Your task to perform on an android device: Google the capital of Uruguay Image 0: 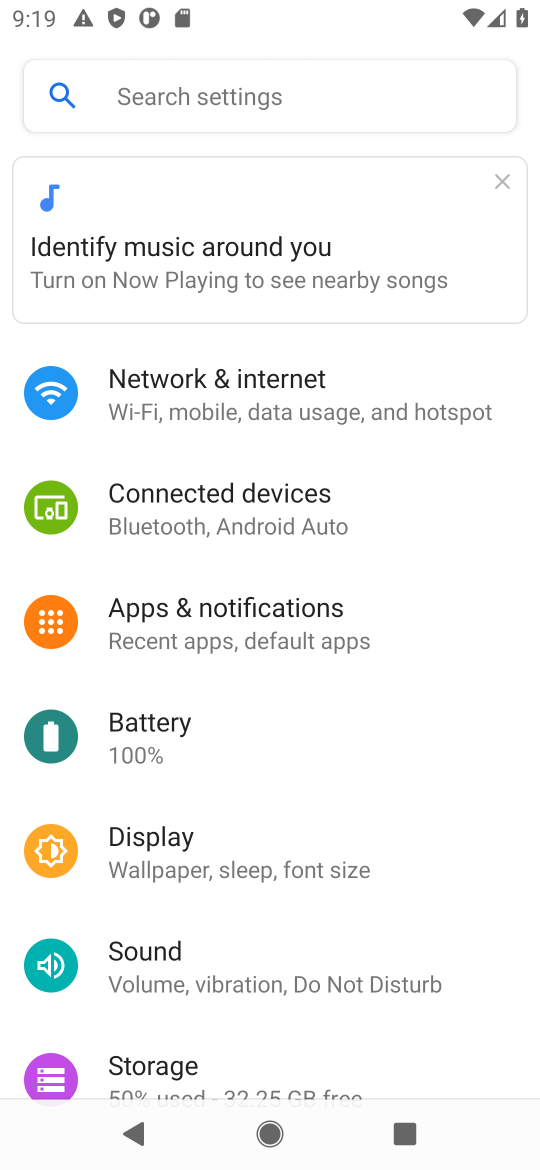
Step 0: press home button
Your task to perform on an android device: Google the capital of Uruguay Image 1: 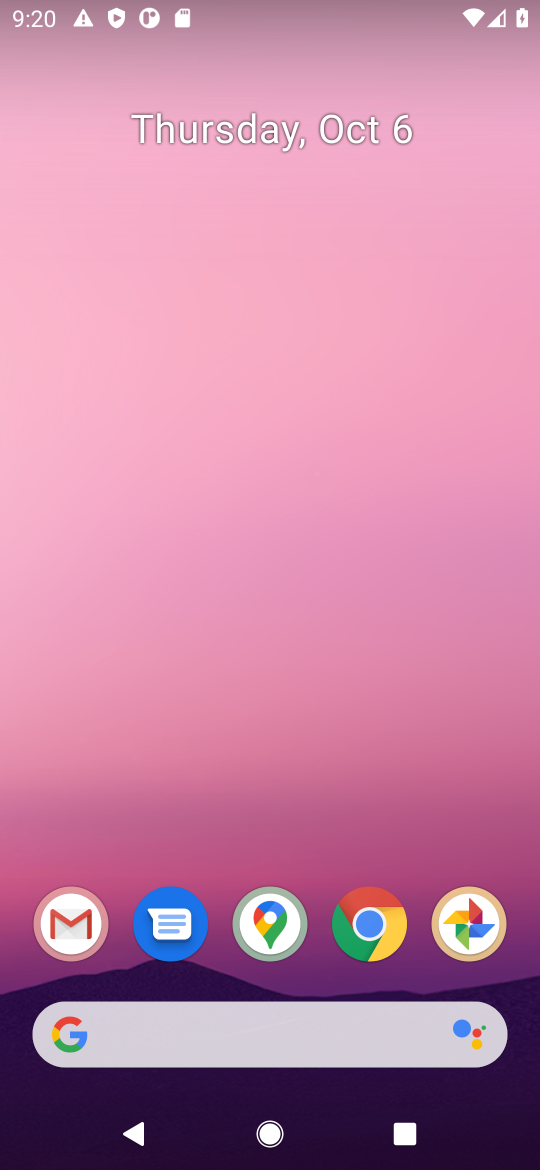
Step 1: click (369, 914)
Your task to perform on an android device: Google the capital of Uruguay Image 2: 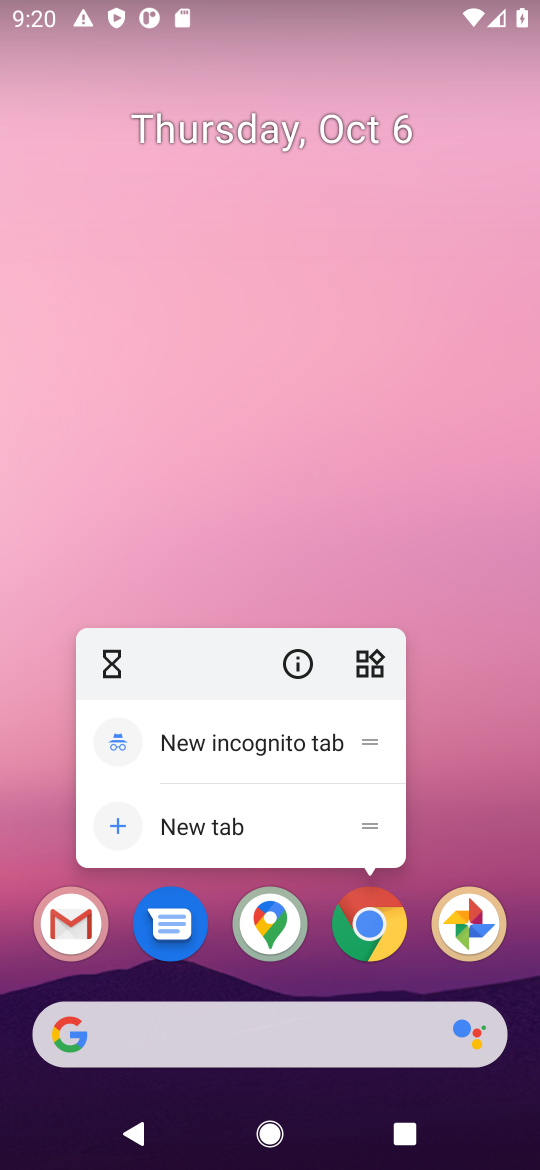
Step 2: click (369, 917)
Your task to perform on an android device: Google the capital of Uruguay Image 3: 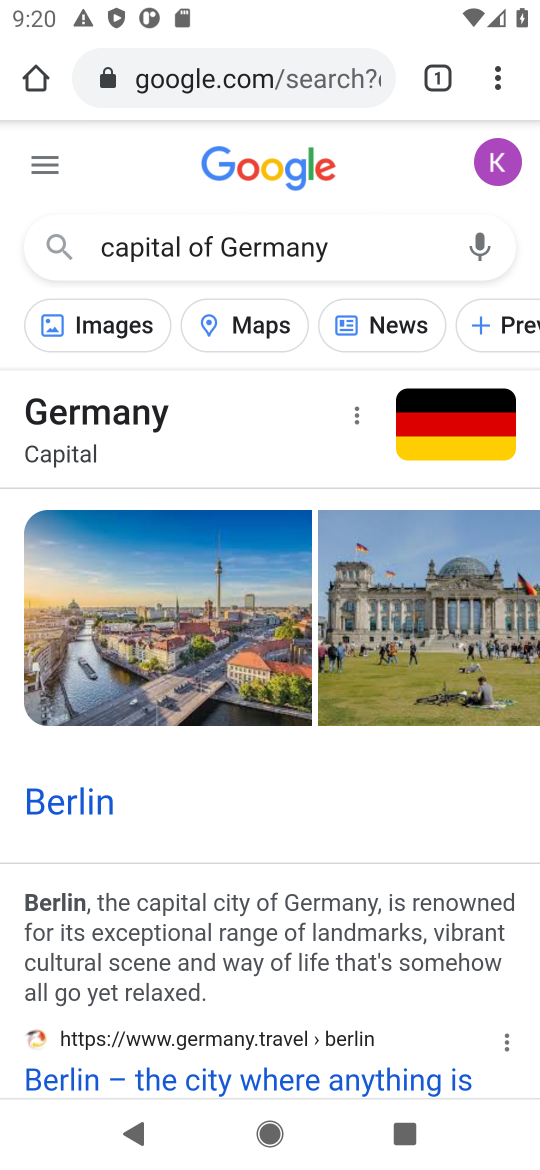
Step 3: click (319, 69)
Your task to perform on an android device: Google the capital of Uruguay Image 4: 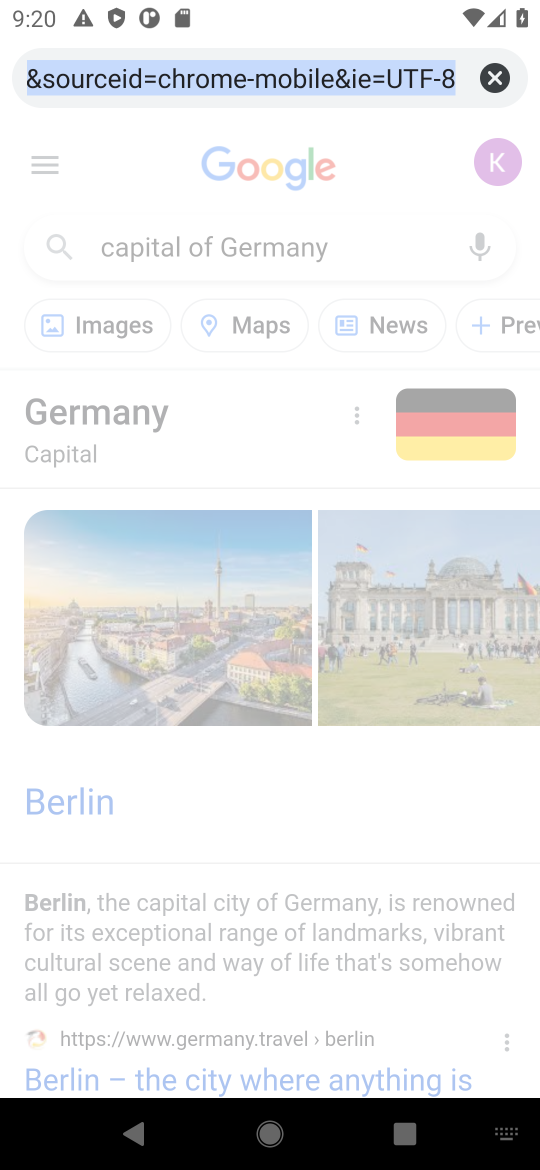
Step 4: click (500, 80)
Your task to perform on an android device: Google the capital of Uruguay Image 5: 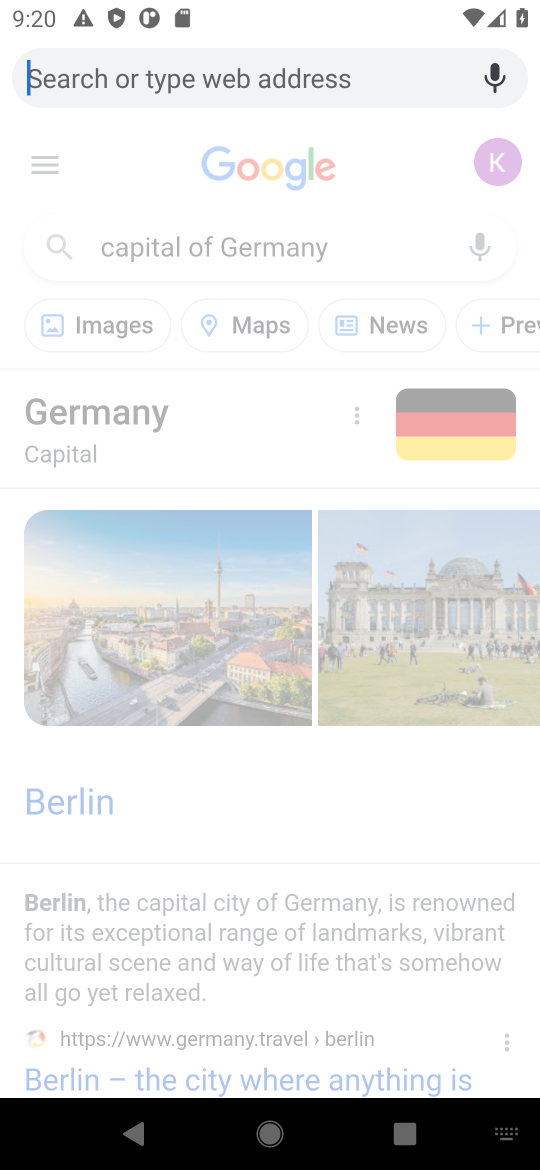
Step 5: type "capital of Uruguay"
Your task to perform on an android device: Google the capital of Uruguay Image 6: 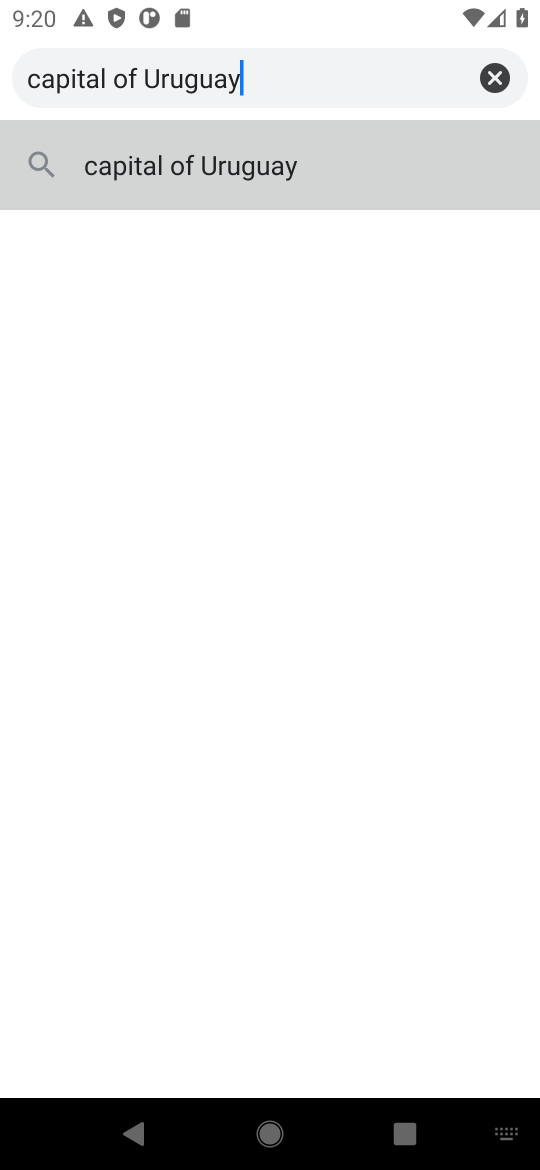
Step 6: click (193, 150)
Your task to perform on an android device: Google the capital of Uruguay Image 7: 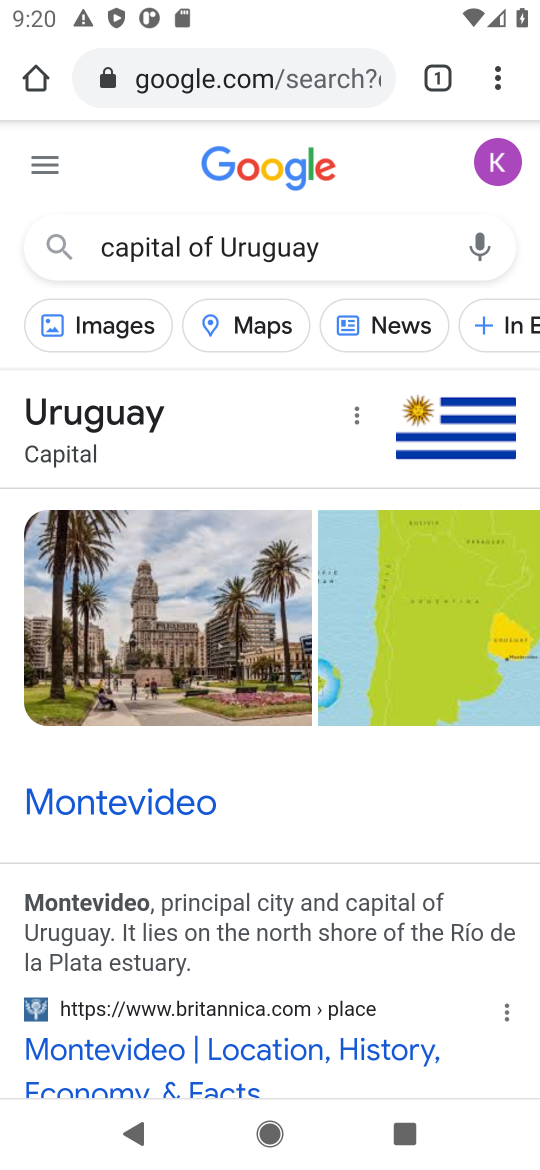
Step 7: drag from (206, 980) to (327, 634)
Your task to perform on an android device: Google the capital of Uruguay Image 8: 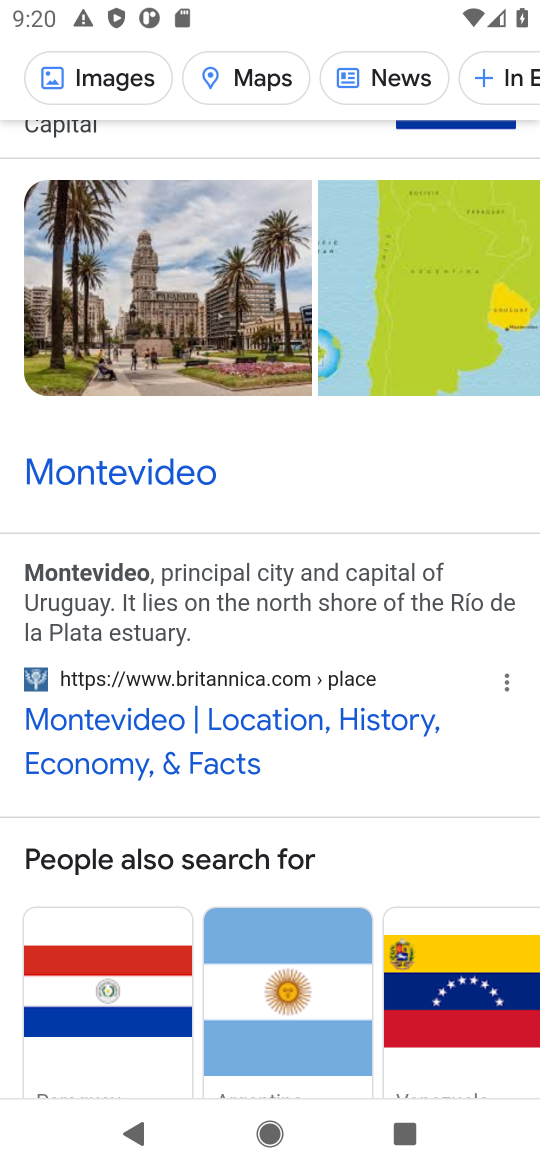
Step 8: drag from (182, 561) to (328, 407)
Your task to perform on an android device: Google the capital of Uruguay Image 9: 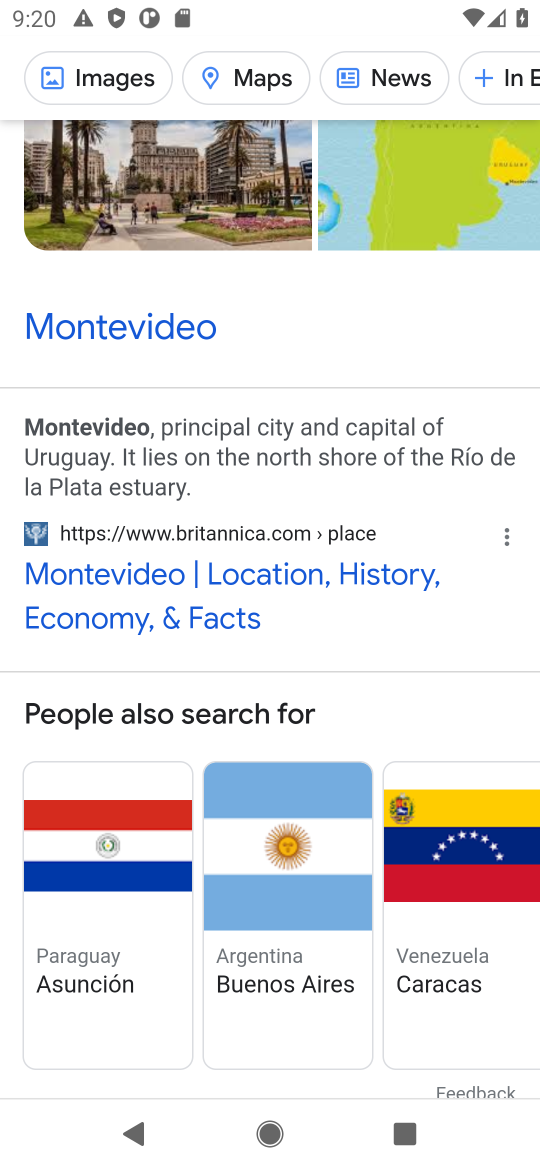
Step 9: drag from (105, 950) to (290, 665)
Your task to perform on an android device: Google the capital of Uruguay Image 10: 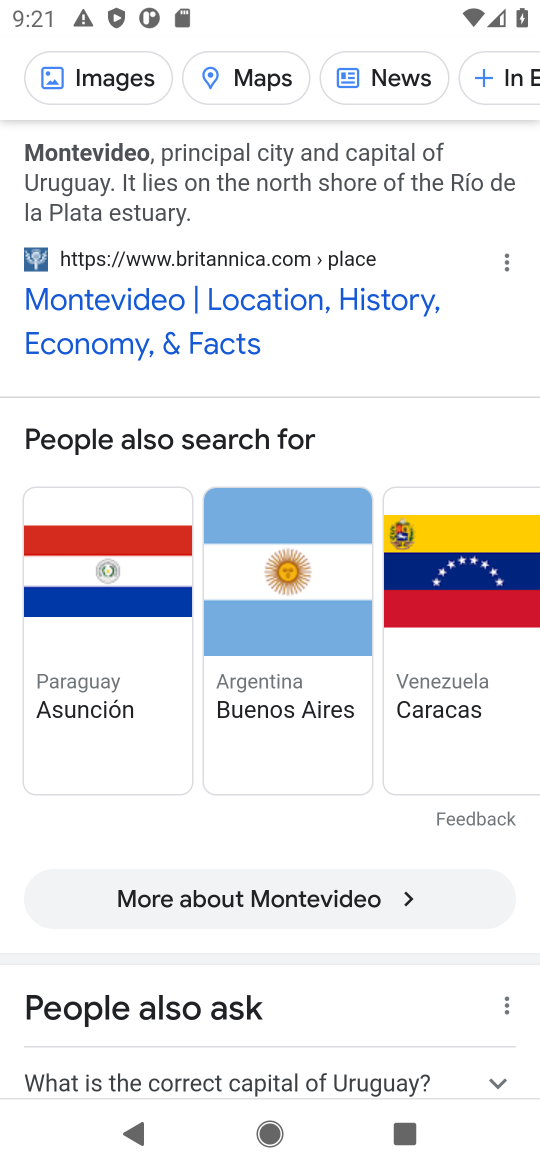
Step 10: drag from (112, 843) to (349, 482)
Your task to perform on an android device: Google the capital of Uruguay Image 11: 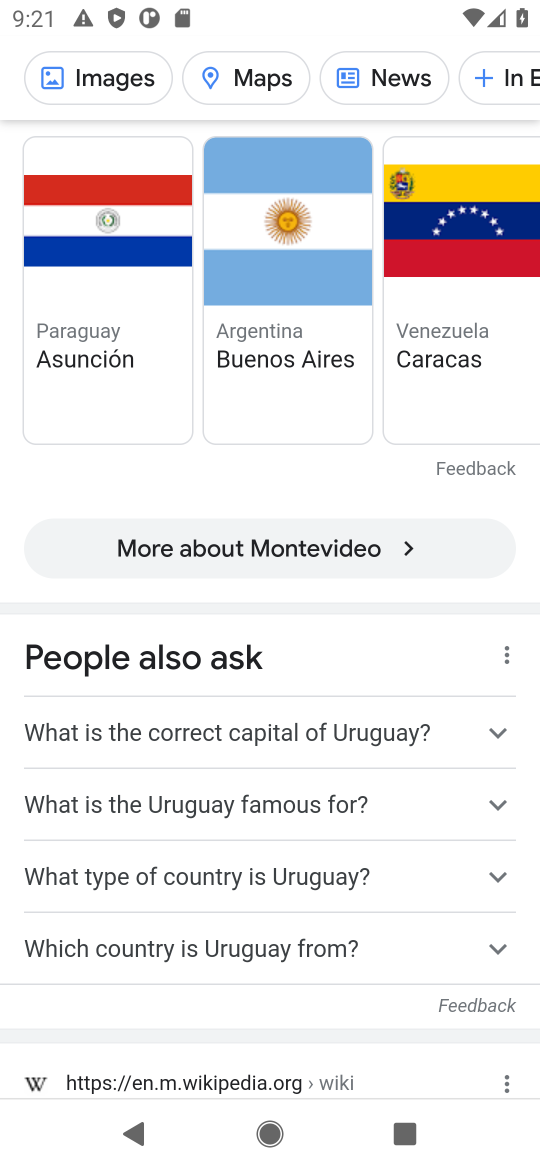
Step 11: click (495, 728)
Your task to perform on an android device: Google the capital of Uruguay Image 12: 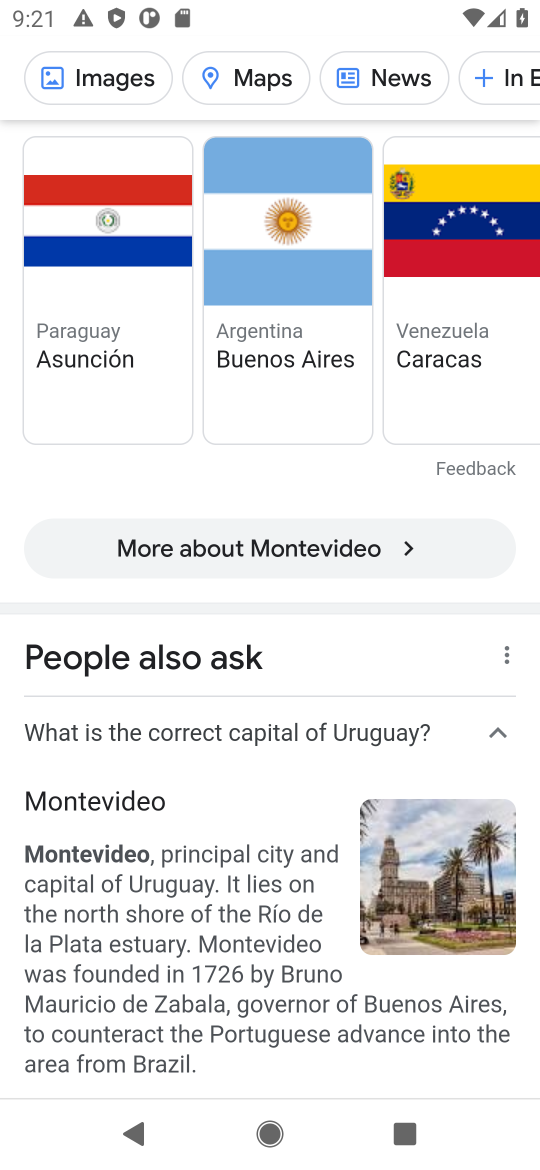
Step 12: task complete